Your task to perform on an android device: Show me popular videos on Youtube Image 0: 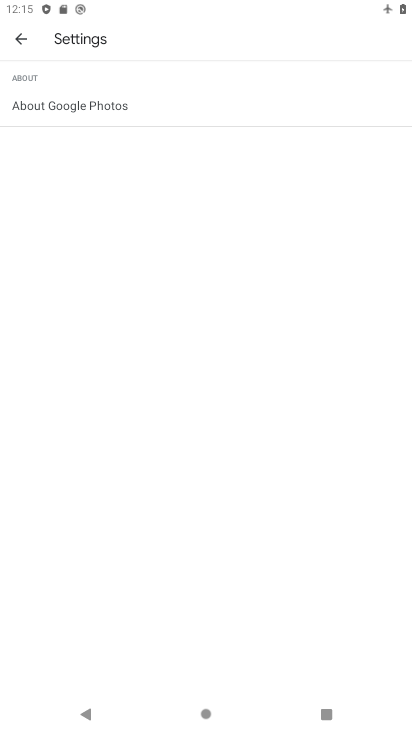
Step 0: press home button
Your task to perform on an android device: Show me popular videos on Youtube Image 1: 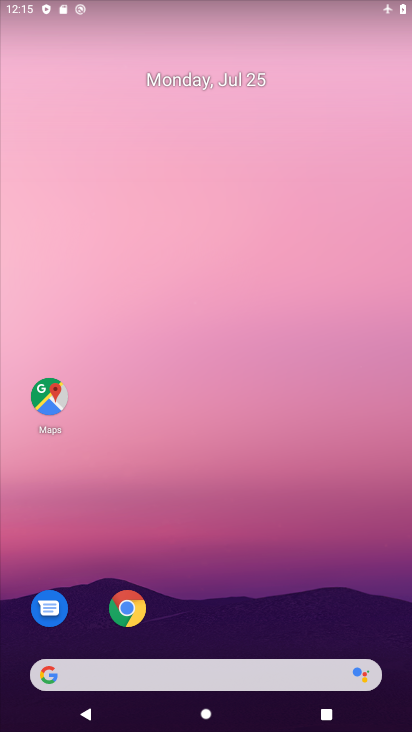
Step 1: drag from (203, 613) to (235, 121)
Your task to perform on an android device: Show me popular videos on Youtube Image 2: 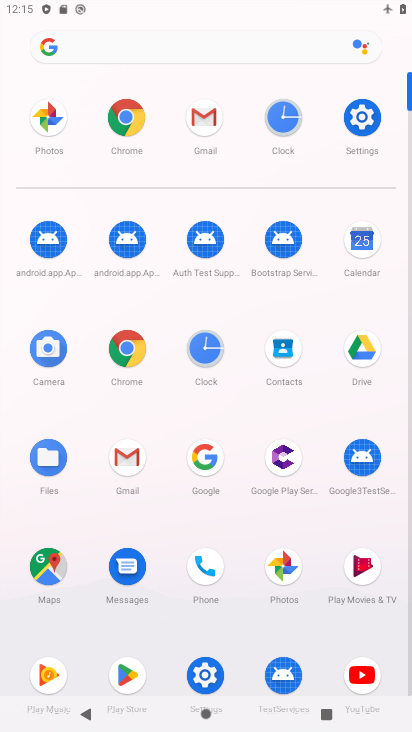
Step 2: click (375, 679)
Your task to perform on an android device: Show me popular videos on Youtube Image 3: 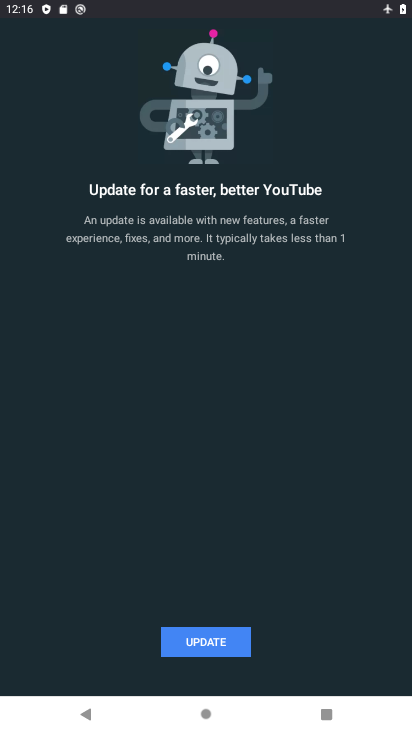
Step 3: click (228, 651)
Your task to perform on an android device: Show me popular videos on Youtube Image 4: 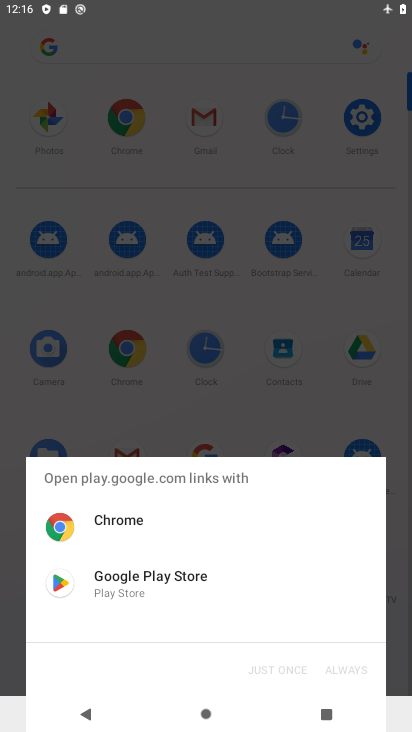
Step 4: task complete